Your task to perform on an android device: check android version Image 0: 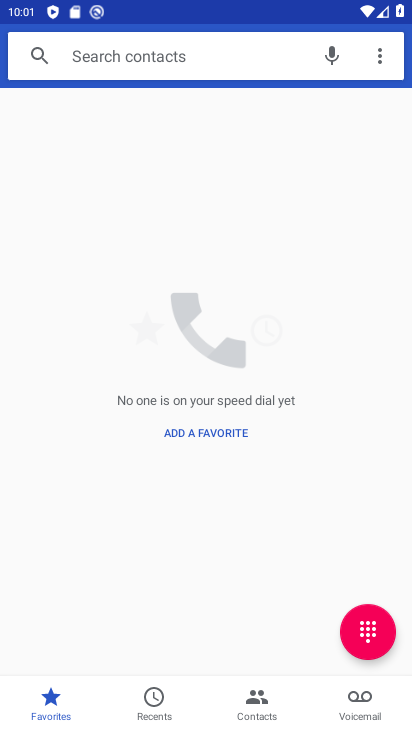
Step 0: press back button
Your task to perform on an android device: check android version Image 1: 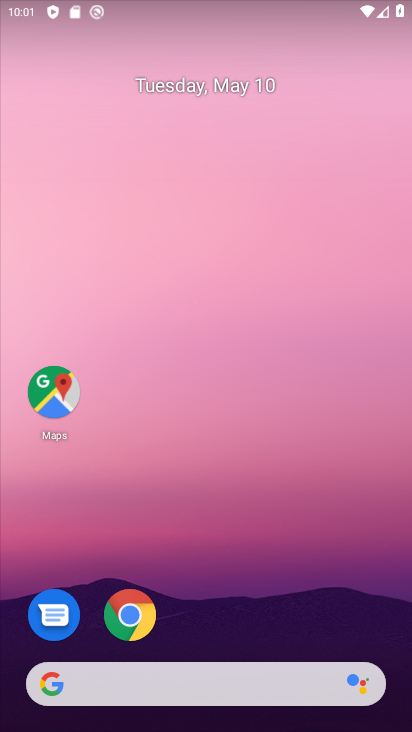
Step 1: drag from (274, 593) to (238, 102)
Your task to perform on an android device: check android version Image 2: 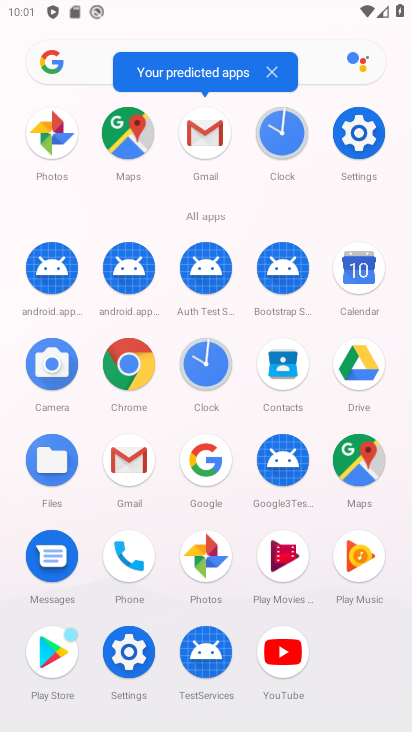
Step 2: click (362, 132)
Your task to perform on an android device: check android version Image 3: 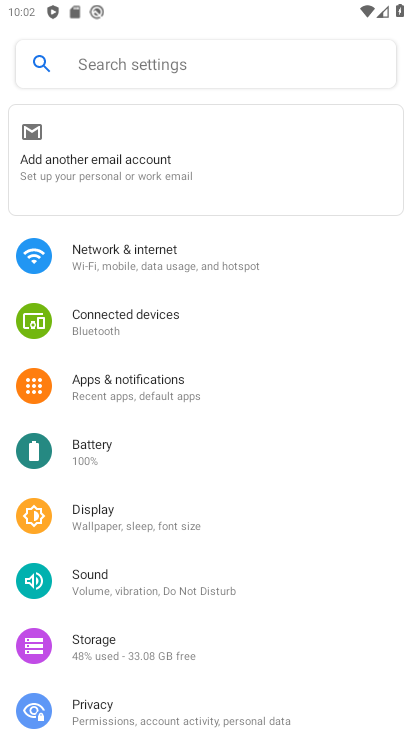
Step 3: drag from (133, 497) to (185, 392)
Your task to perform on an android device: check android version Image 4: 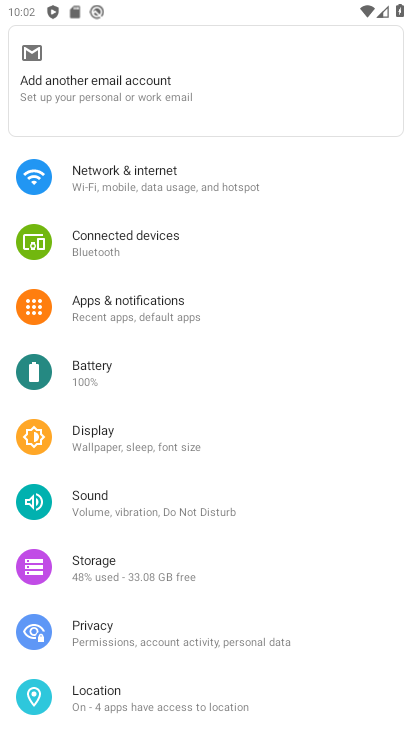
Step 4: drag from (127, 535) to (164, 451)
Your task to perform on an android device: check android version Image 5: 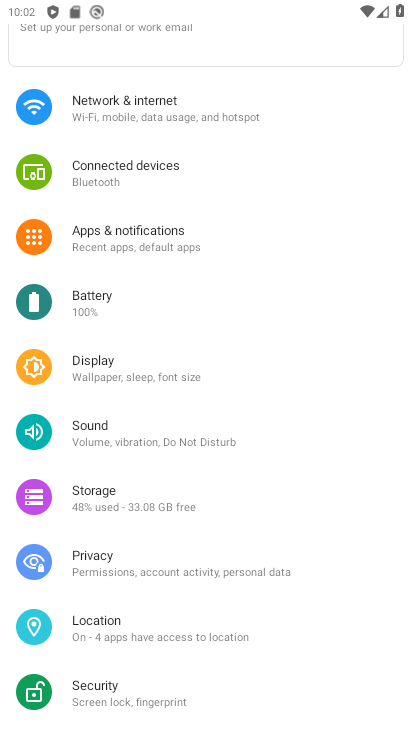
Step 5: drag from (100, 582) to (160, 486)
Your task to perform on an android device: check android version Image 6: 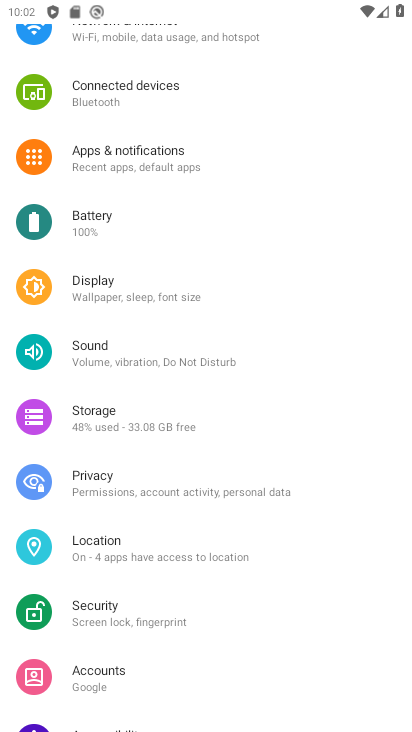
Step 6: drag from (112, 579) to (164, 492)
Your task to perform on an android device: check android version Image 7: 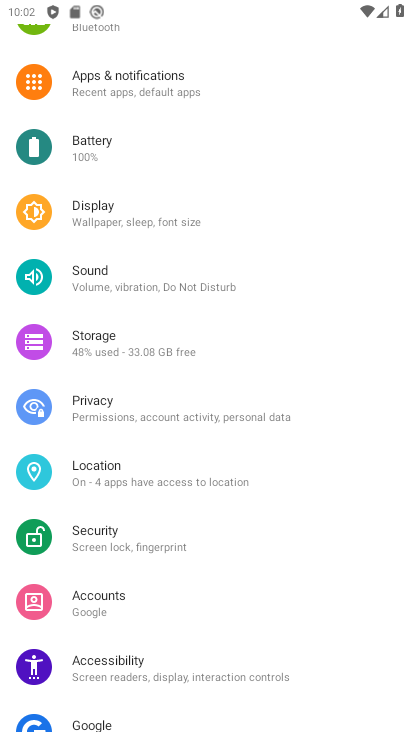
Step 7: drag from (96, 571) to (161, 493)
Your task to perform on an android device: check android version Image 8: 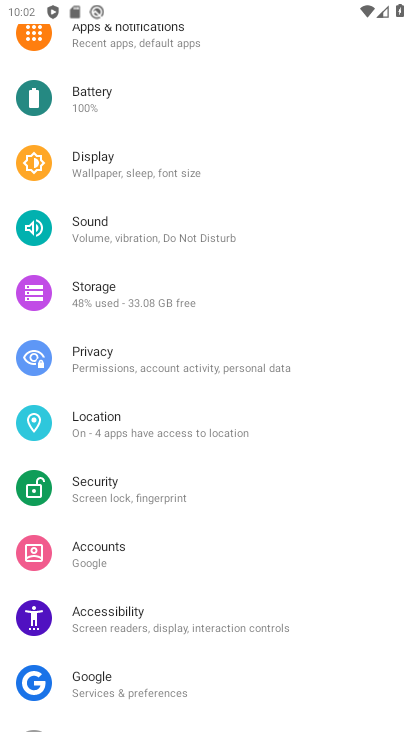
Step 8: drag from (97, 644) to (214, 490)
Your task to perform on an android device: check android version Image 9: 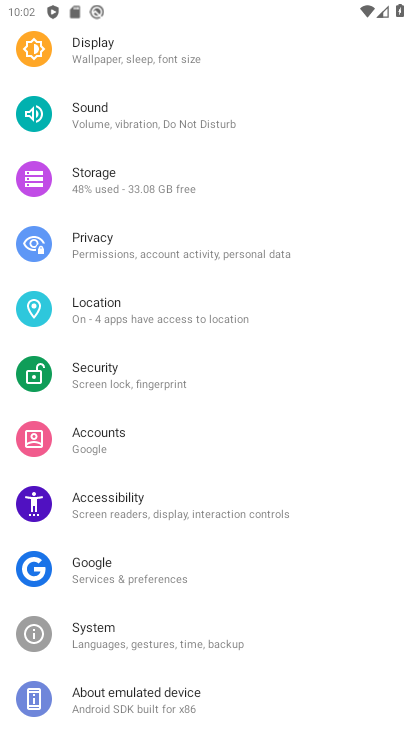
Step 9: click (106, 695)
Your task to perform on an android device: check android version Image 10: 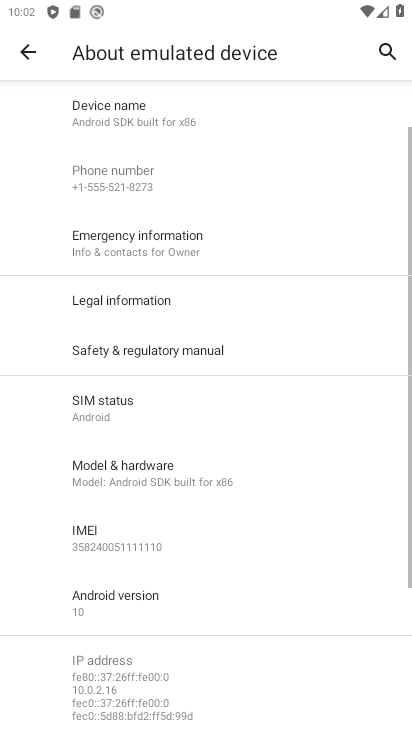
Step 10: drag from (157, 499) to (204, 413)
Your task to perform on an android device: check android version Image 11: 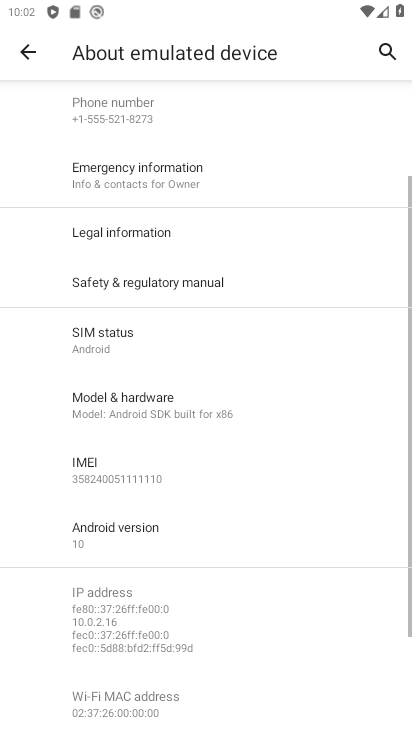
Step 11: click (122, 526)
Your task to perform on an android device: check android version Image 12: 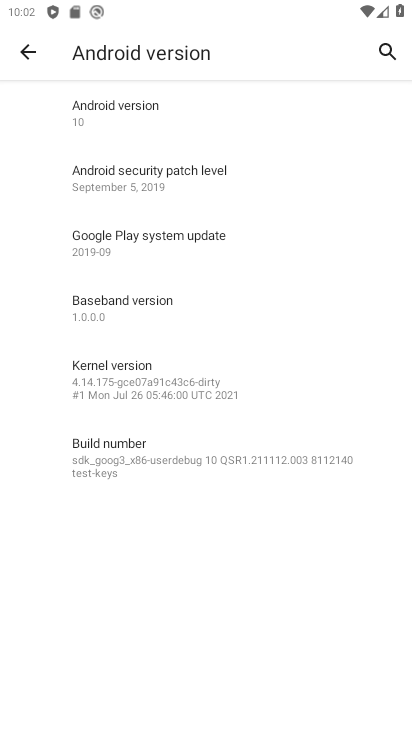
Step 12: task complete